Your task to perform on an android device: Open calendar and show me the first week of next month Image 0: 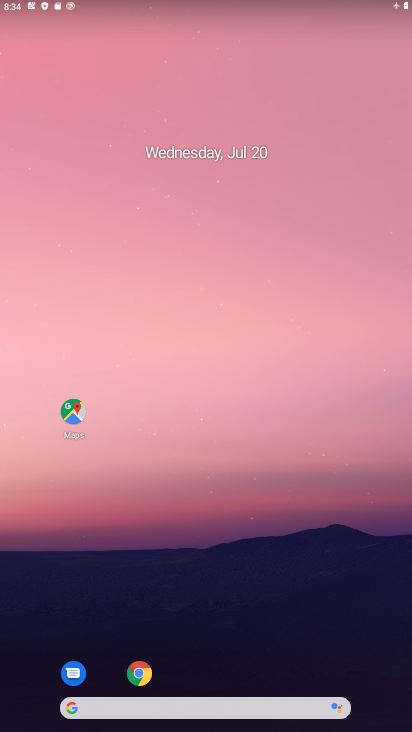
Step 0: drag from (220, 729) to (227, 371)
Your task to perform on an android device: Open calendar and show me the first week of next month Image 1: 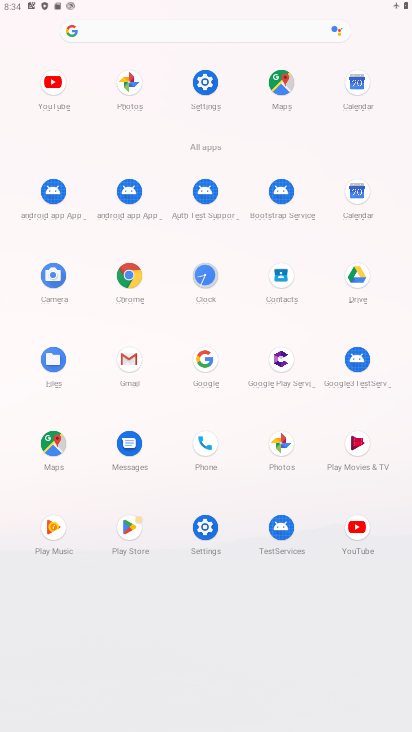
Step 1: click (361, 194)
Your task to perform on an android device: Open calendar and show me the first week of next month Image 2: 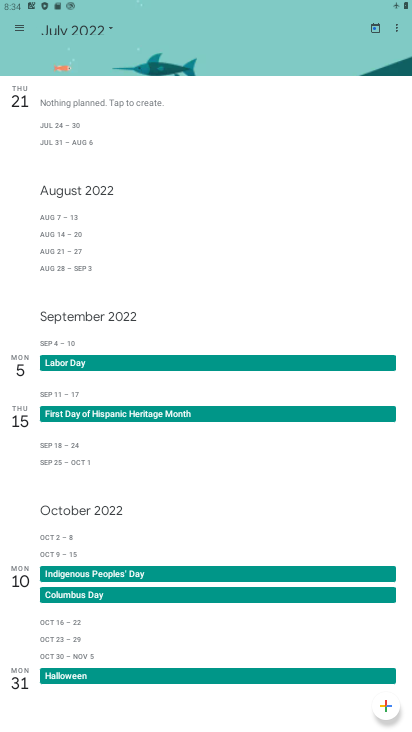
Step 2: click (108, 26)
Your task to perform on an android device: Open calendar and show me the first week of next month Image 3: 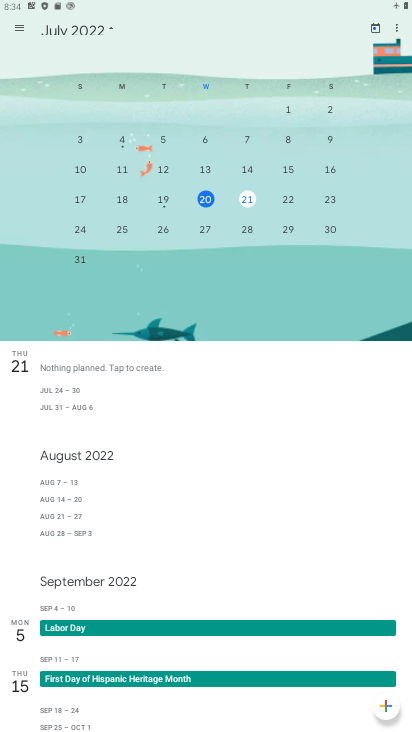
Step 3: drag from (335, 201) to (86, 215)
Your task to perform on an android device: Open calendar and show me the first week of next month Image 4: 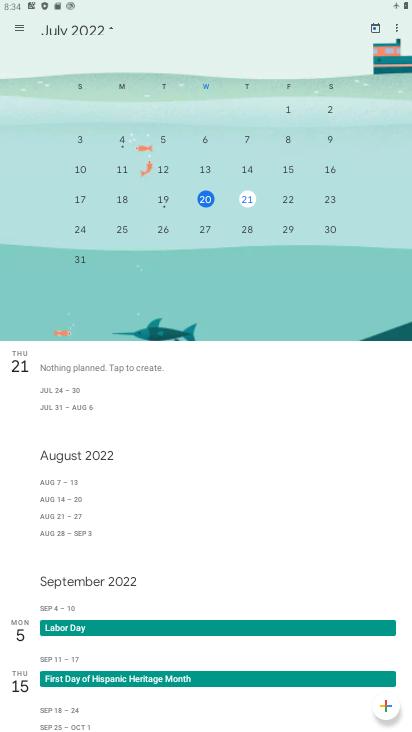
Step 4: drag from (331, 191) to (122, 191)
Your task to perform on an android device: Open calendar and show me the first week of next month Image 5: 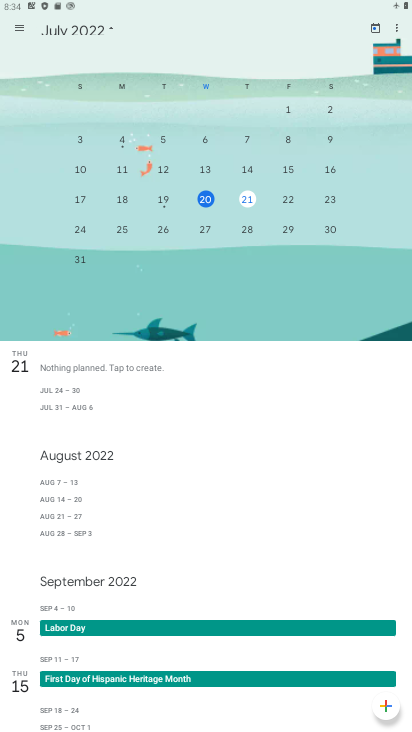
Step 5: drag from (320, 195) to (0, 212)
Your task to perform on an android device: Open calendar and show me the first week of next month Image 6: 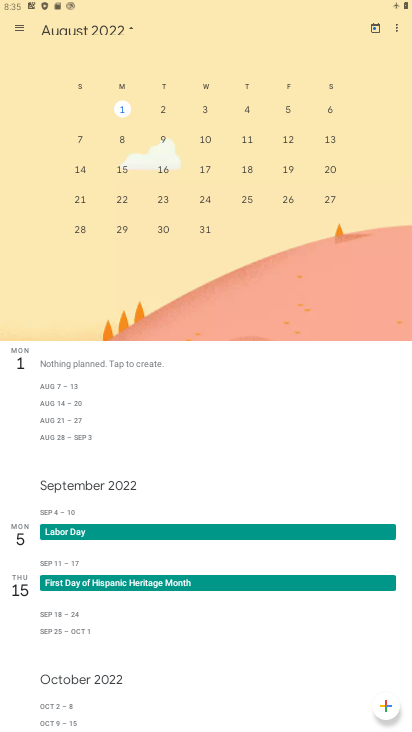
Step 6: click (18, 25)
Your task to perform on an android device: Open calendar and show me the first week of next month Image 7: 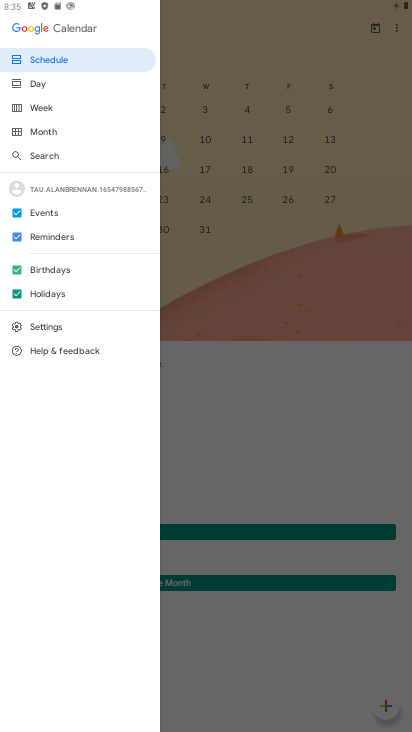
Step 7: click (44, 106)
Your task to perform on an android device: Open calendar and show me the first week of next month Image 8: 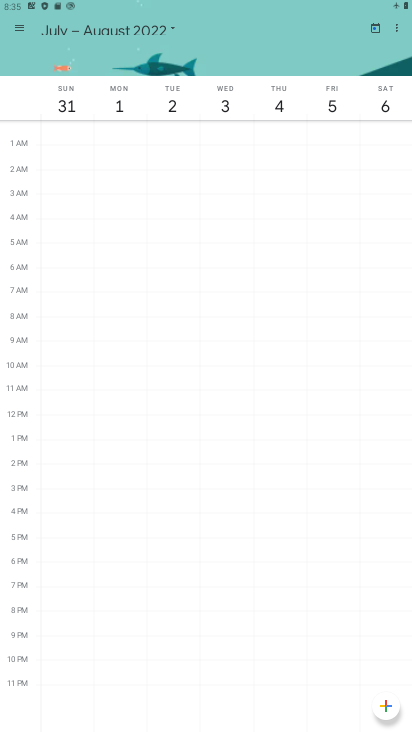
Step 8: task complete